Your task to perform on an android device: open chrome and create a bookmark for the current page Image 0: 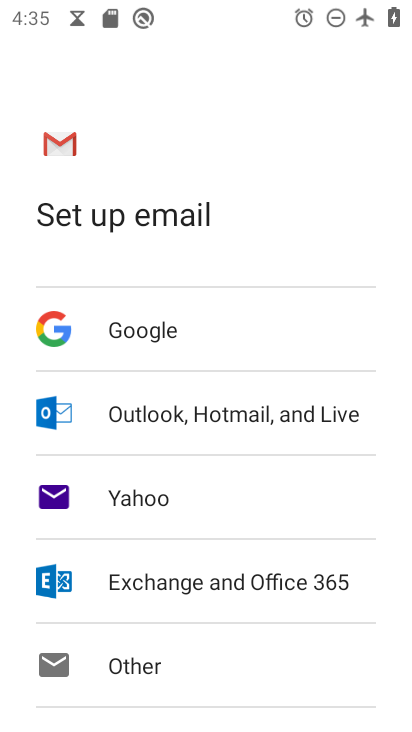
Step 0: press home button
Your task to perform on an android device: open chrome and create a bookmark for the current page Image 1: 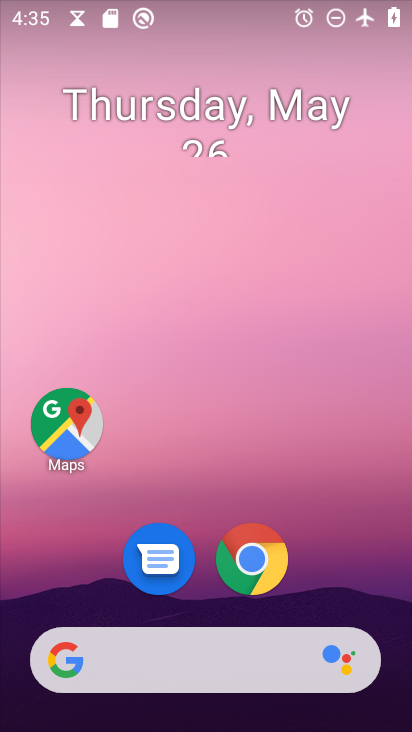
Step 1: click (279, 559)
Your task to perform on an android device: open chrome and create a bookmark for the current page Image 2: 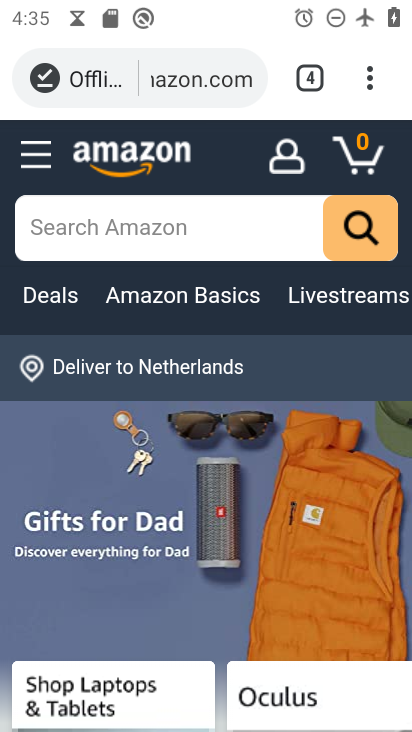
Step 2: click (374, 66)
Your task to perform on an android device: open chrome and create a bookmark for the current page Image 3: 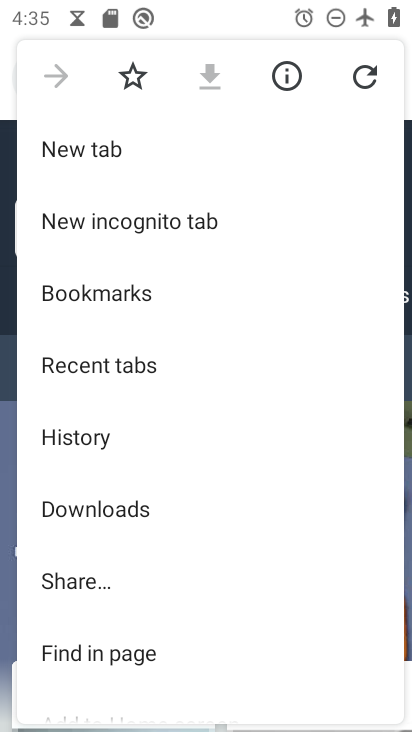
Step 3: click (133, 76)
Your task to perform on an android device: open chrome and create a bookmark for the current page Image 4: 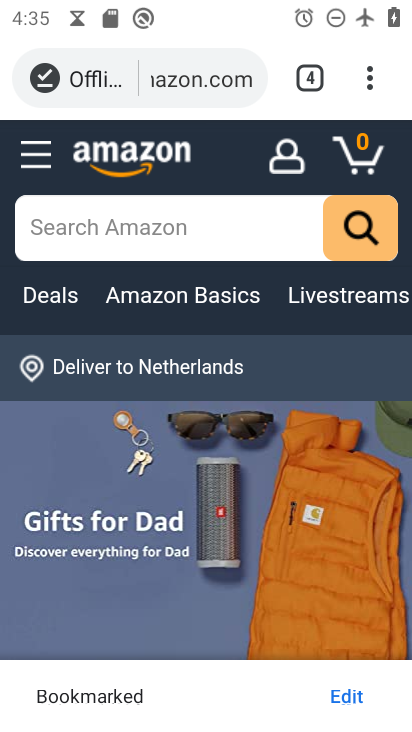
Step 4: task complete